Your task to perform on an android device: uninstall "Facebook Messenger" Image 0: 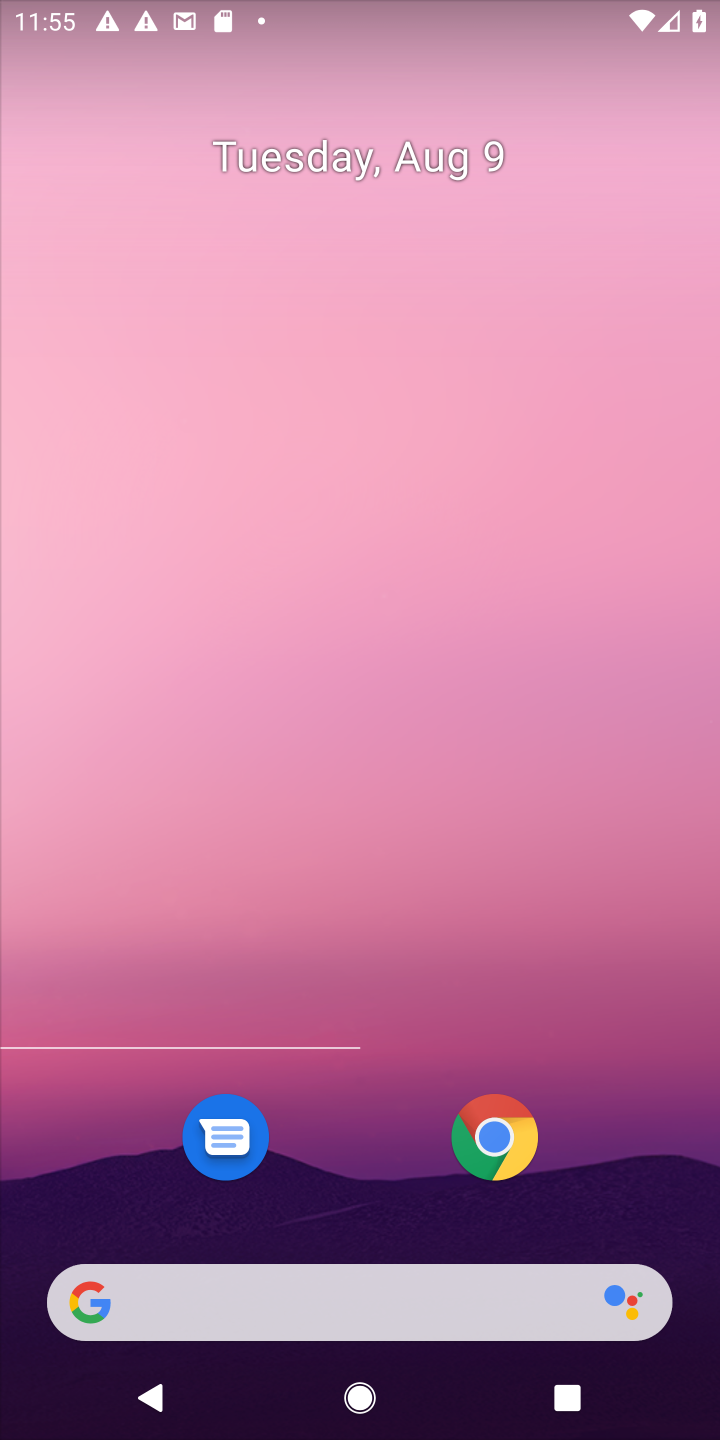
Step 0: press home button
Your task to perform on an android device: uninstall "Facebook Messenger" Image 1: 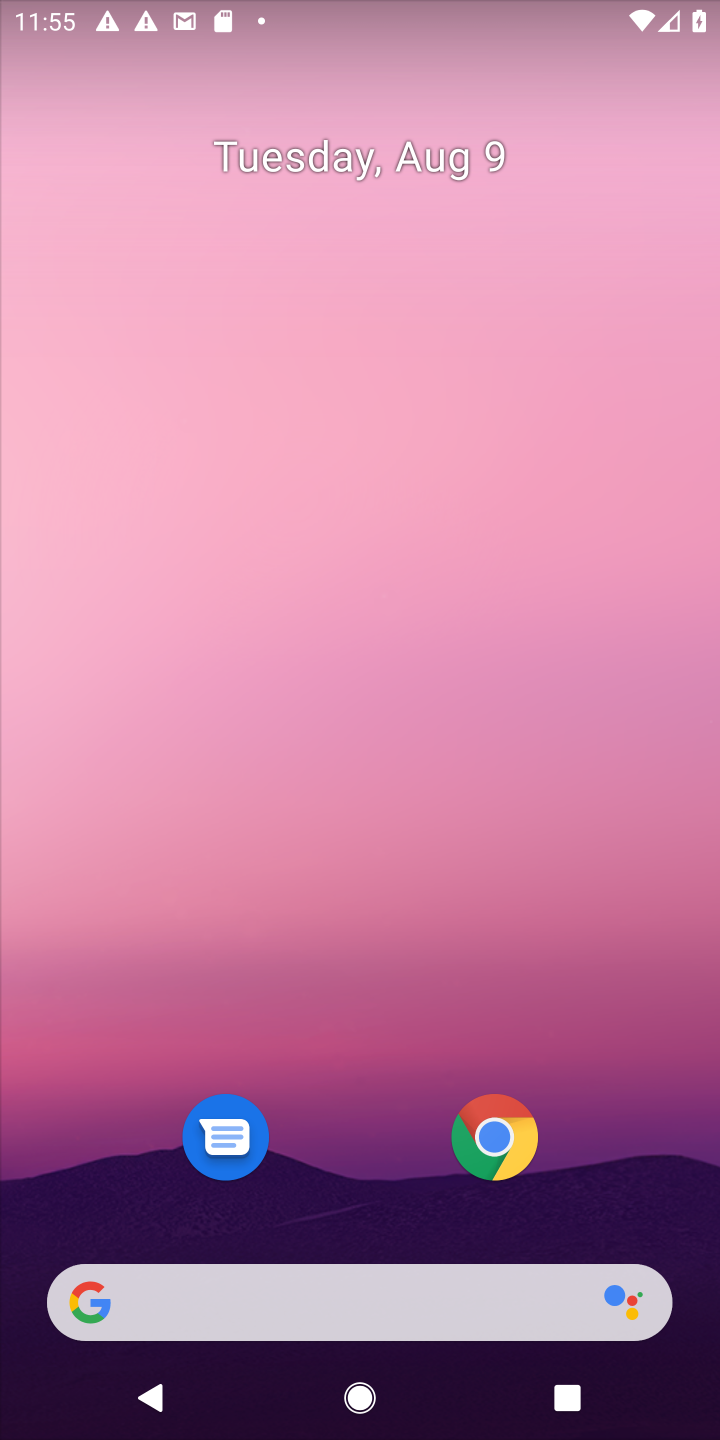
Step 1: press home button
Your task to perform on an android device: uninstall "Facebook Messenger" Image 2: 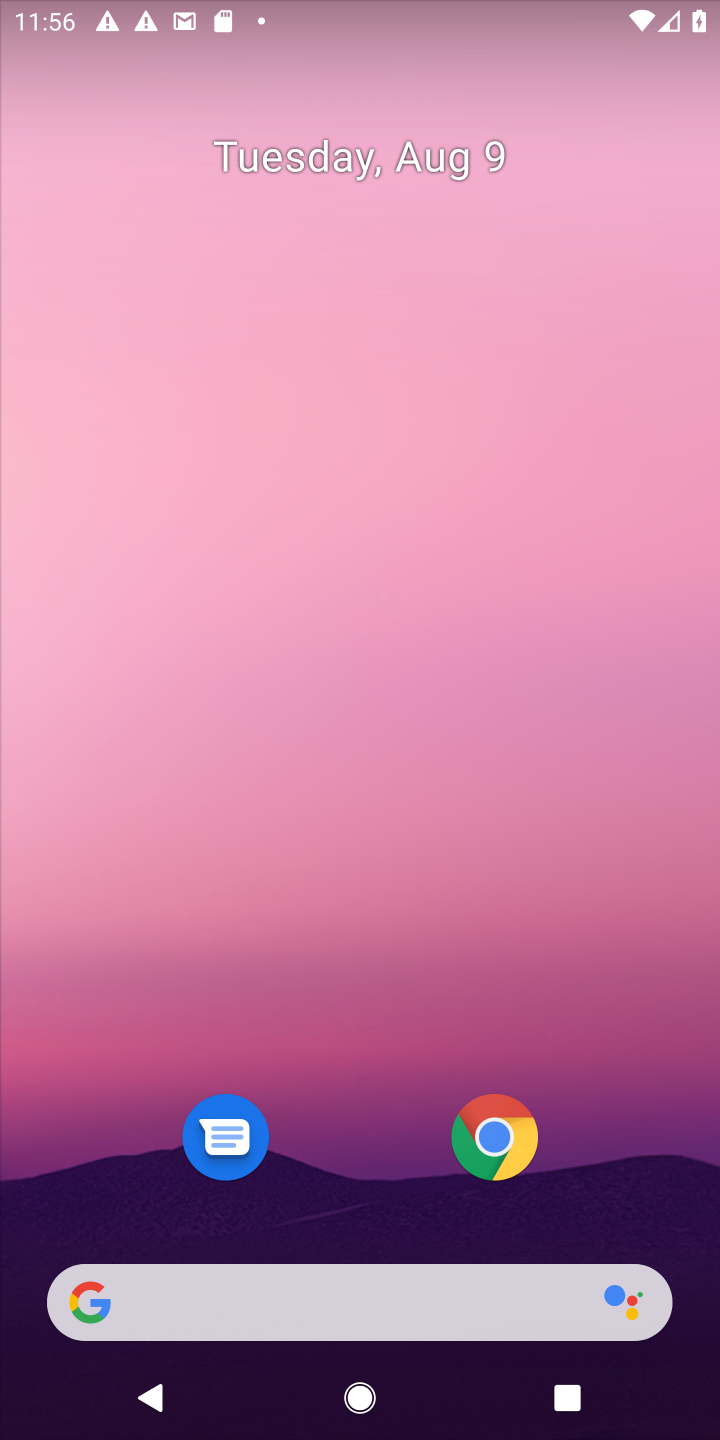
Step 2: drag from (377, 1218) to (448, 21)
Your task to perform on an android device: uninstall "Facebook Messenger" Image 3: 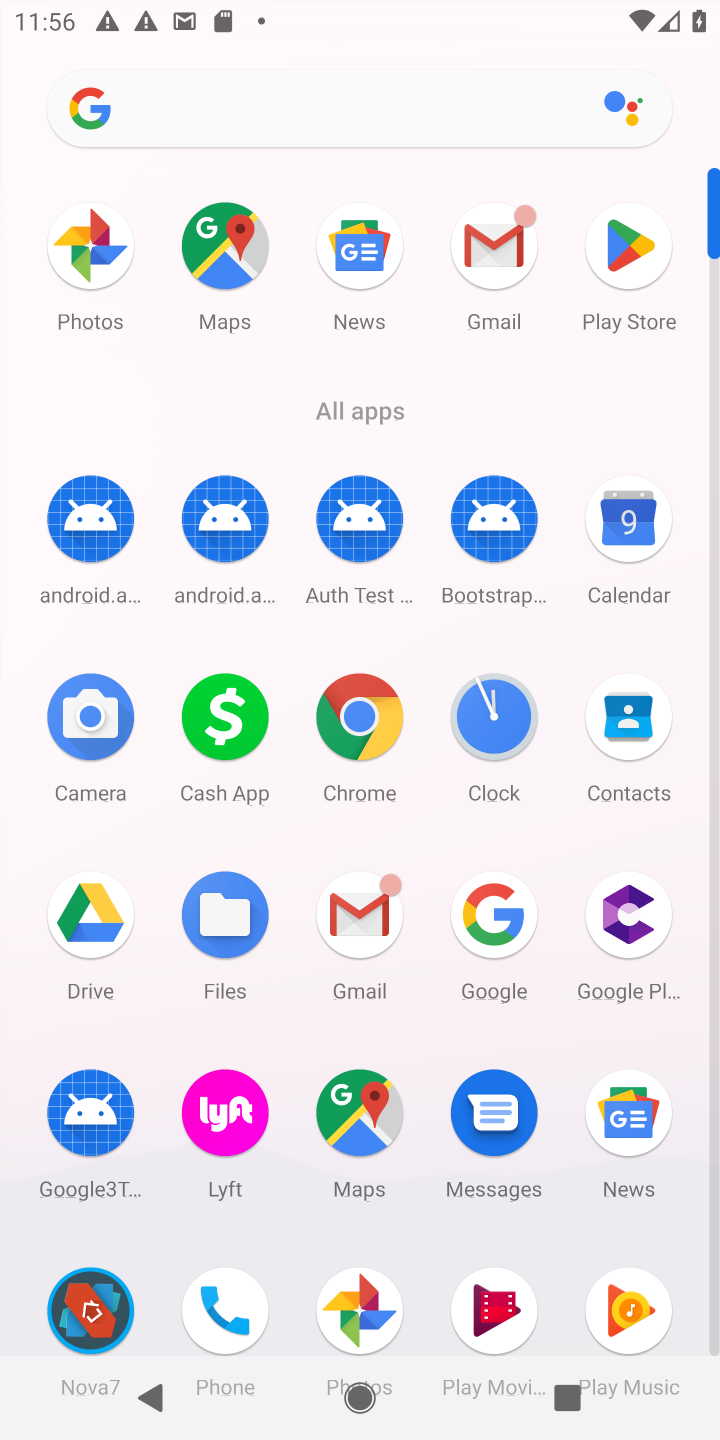
Step 3: click (623, 241)
Your task to perform on an android device: uninstall "Facebook Messenger" Image 4: 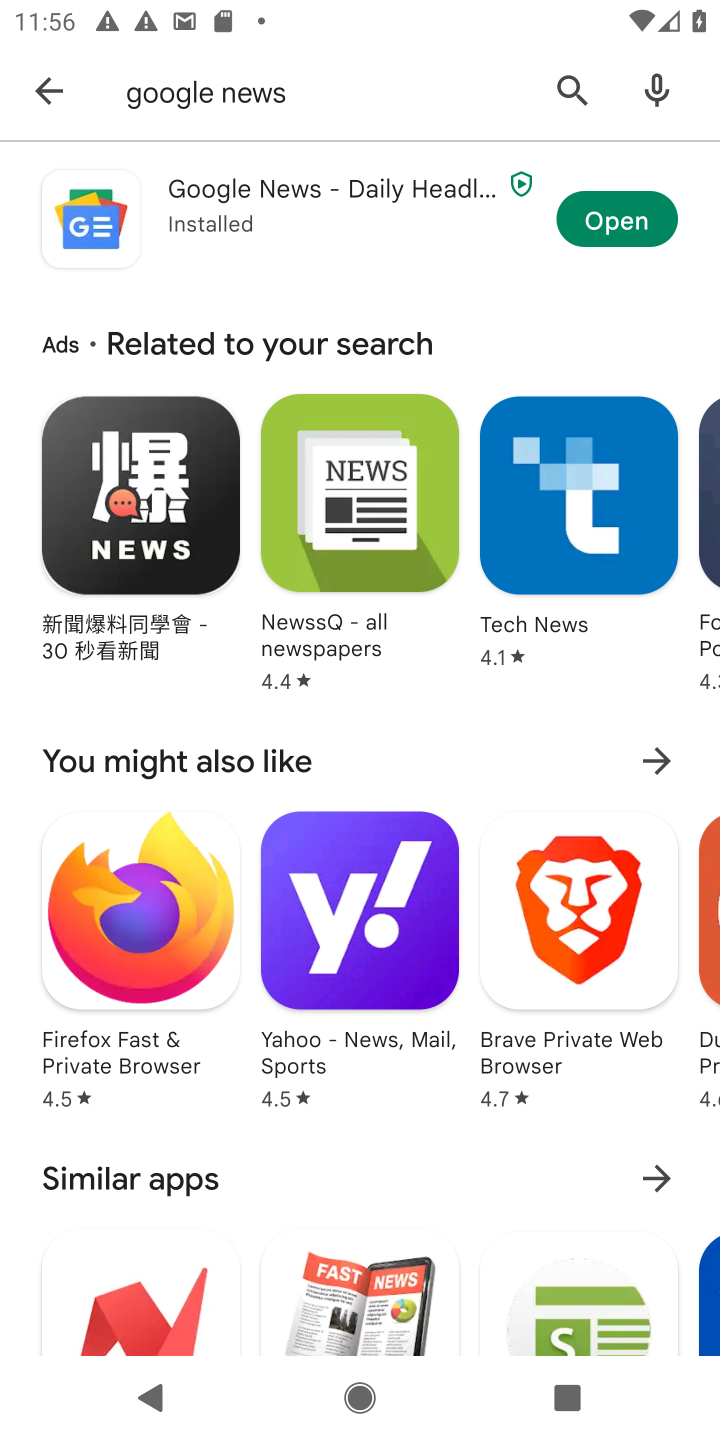
Step 4: click (565, 93)
Your task to perform on an android device: uninstall "Facebook Messenger" Image 5: 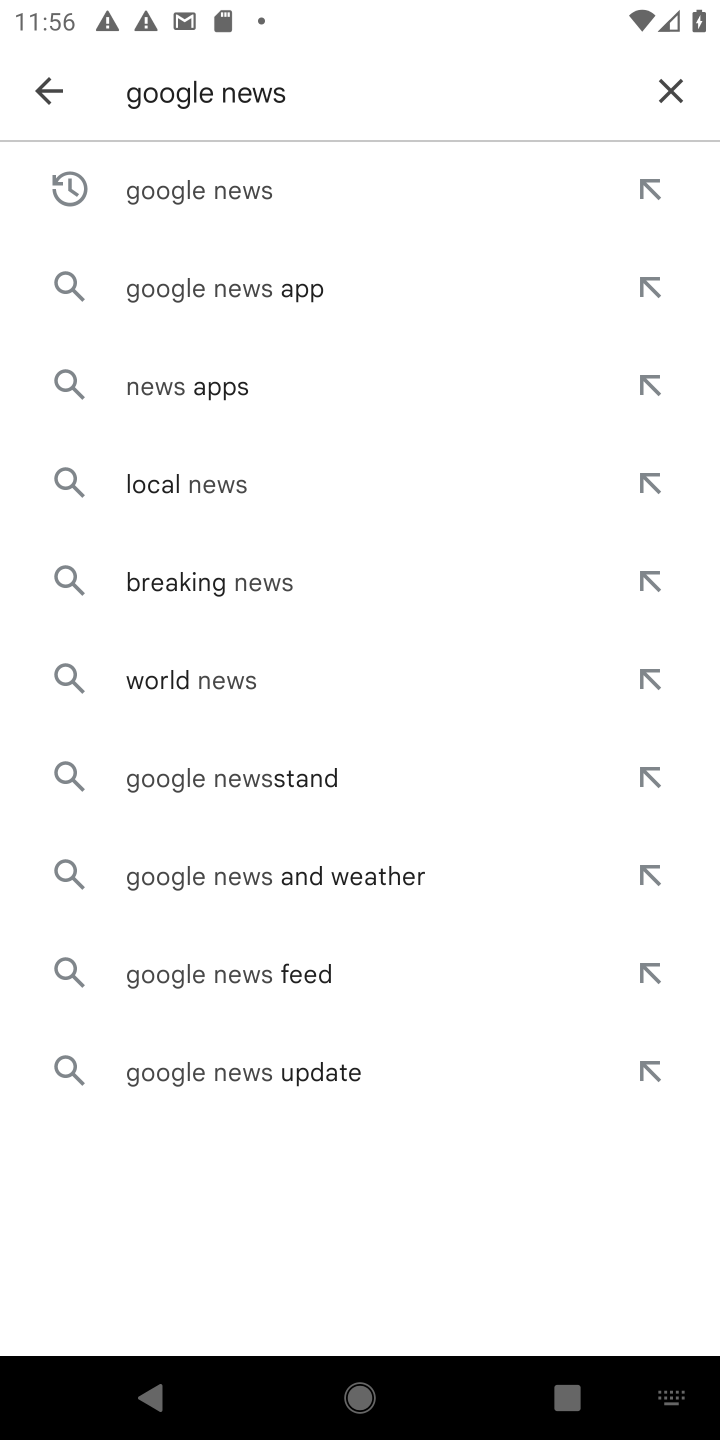
Step 5: click (672, 90)
Your task to perform on an android device: uninstall "Facebook Messenger" Image 6: 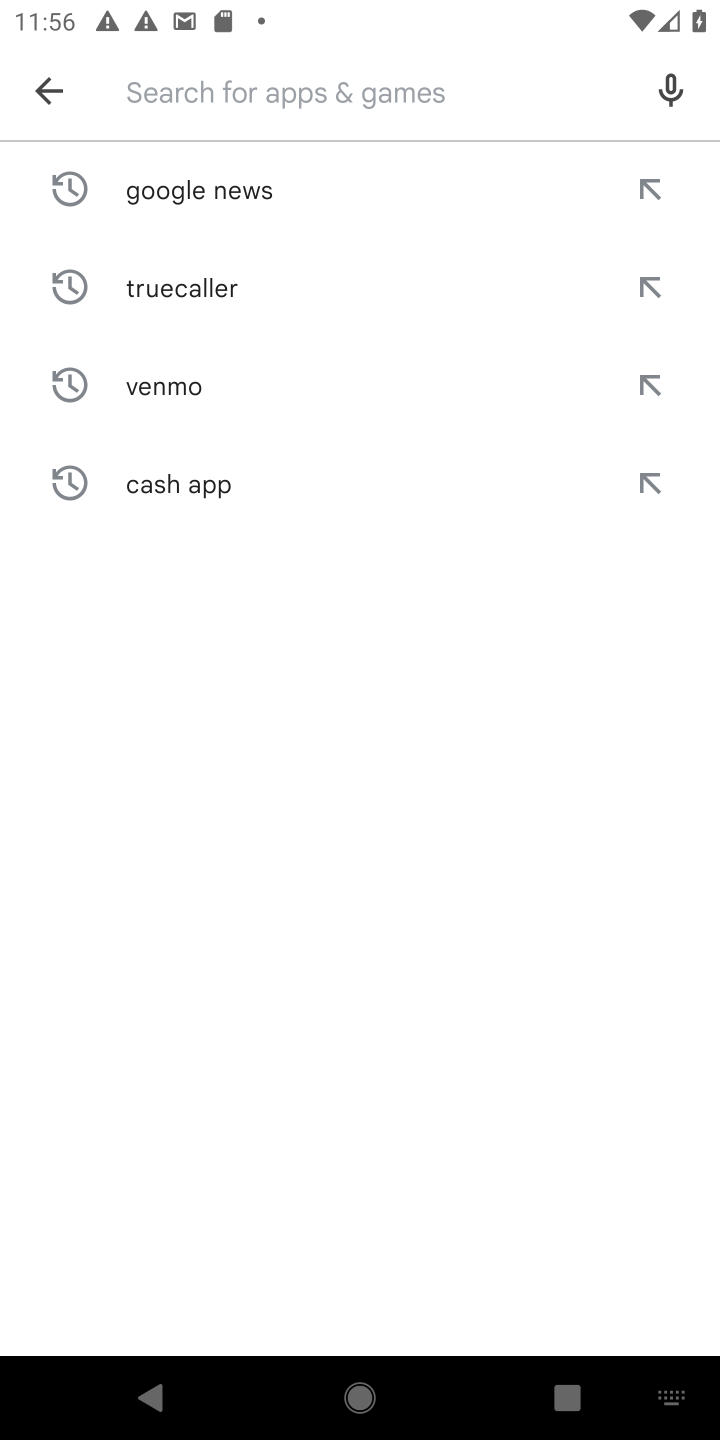
Step 6: type "Facebook Messenger"
Your task to perform on an android device: uninstall "Facebook Messenger" Image 7: 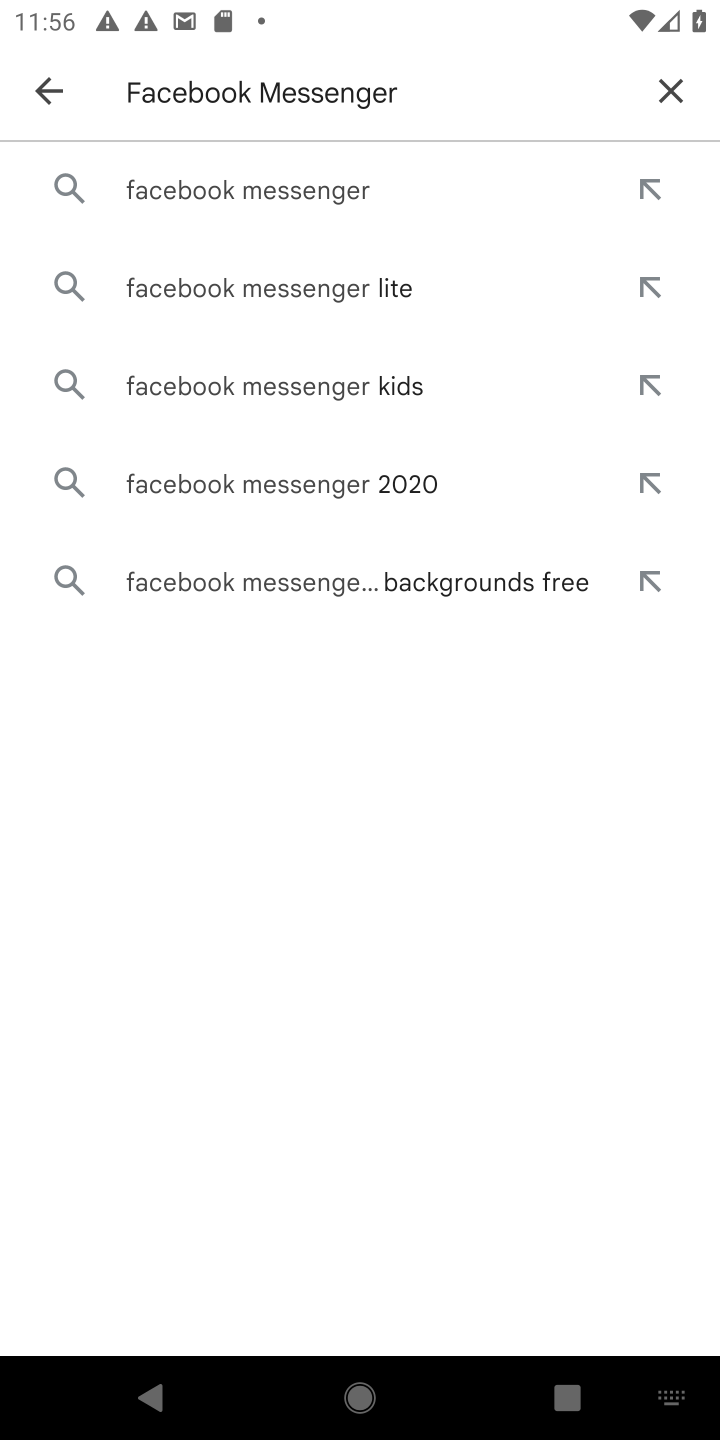
Step 7: click (400, 184)
Your task to perform on an android device: uninstall "Facebook Messenger" Image 8: 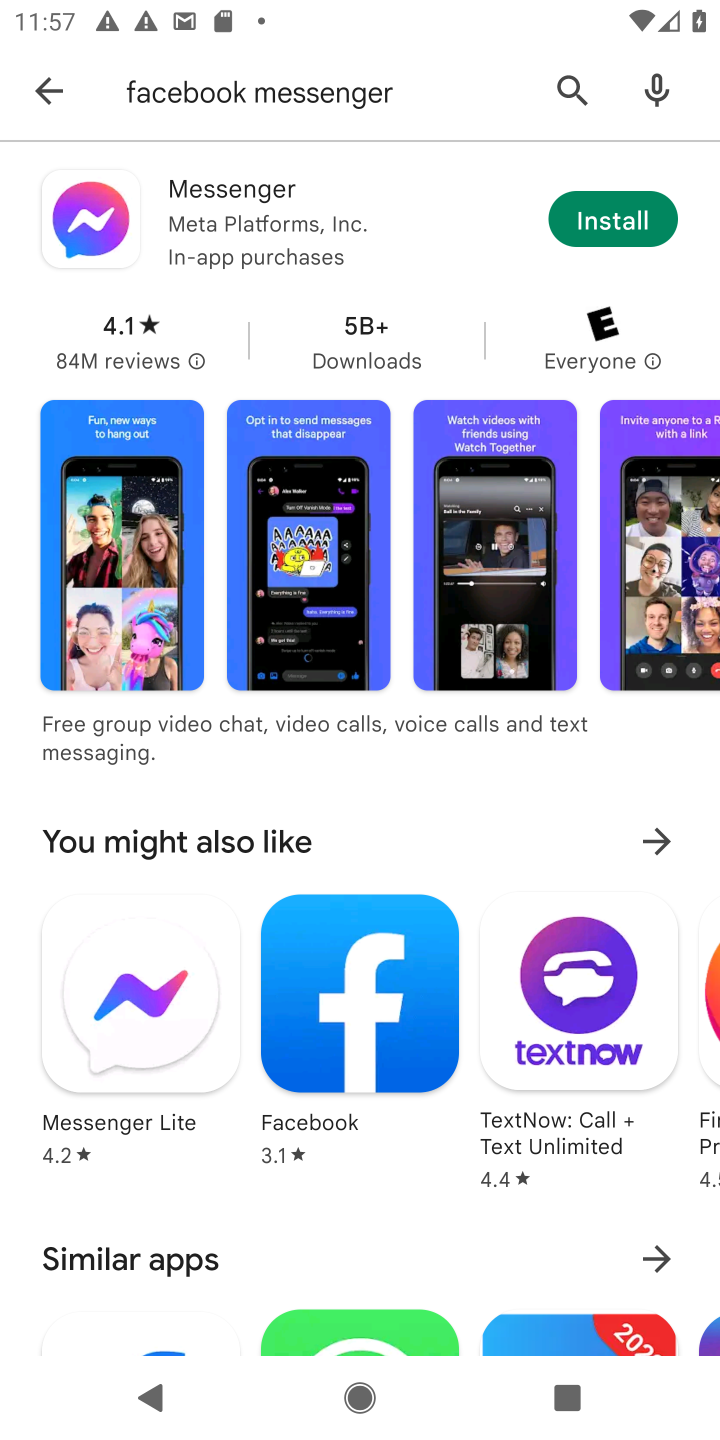
Step 8: task complete